Your task to perform on an android device: toggle show notifications on the lock screen Image 0: 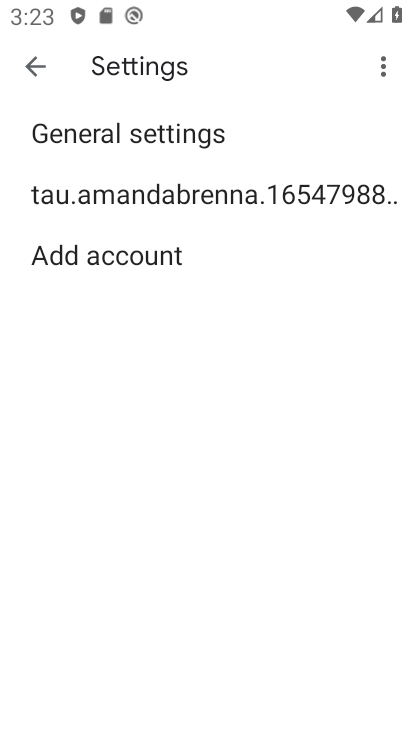
Step 0: press home button
Your task to perform on an android device: toggle show notifications on the lock screen Image 1: 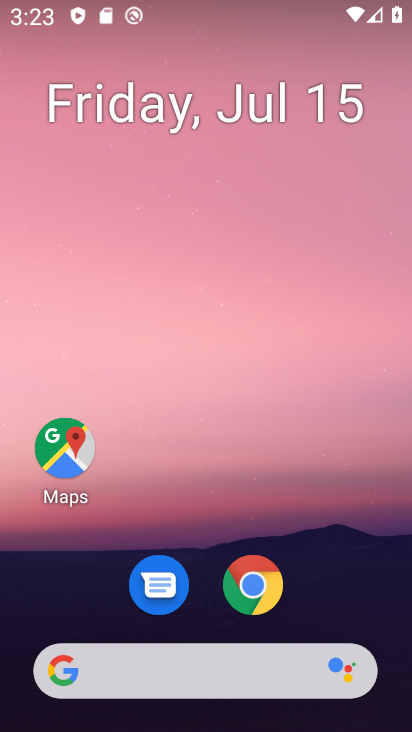
Step 1: drag from (186, 367) to (177, 143)
Your task to perform on an android device: toggle show notifications on the lock screen Image 2: 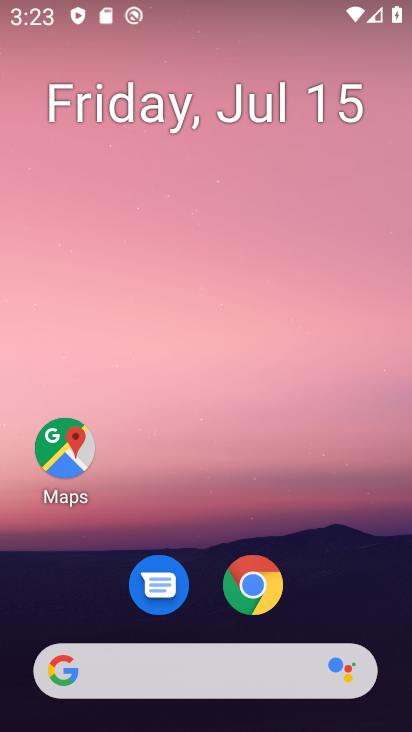
Step 2: drag from (230, 433) to (171, 86)
Your task to perform on an android device: toggle show notifications on the lock screen Image 3: 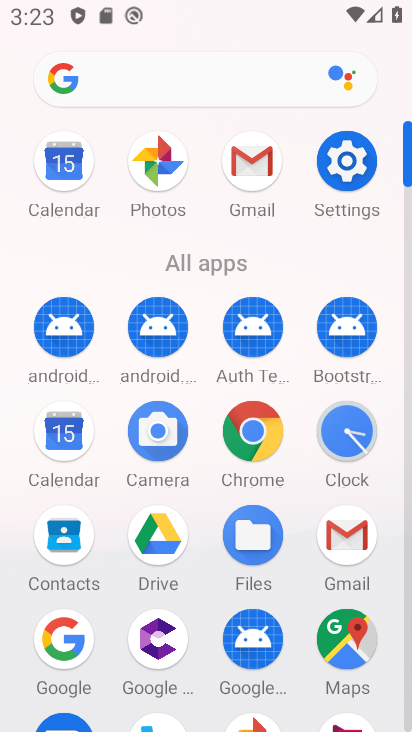
Step 3: click (339, 178)
Your task to perform on an android device: toggle show notifications on the lock screen Image 4: 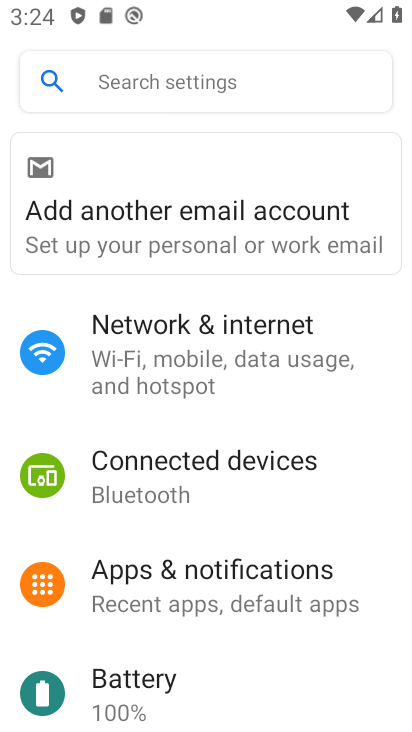
Step 4: click (218, 567)
Your task to perform on an android device: toggle show notifications on the lock screen Image 5: 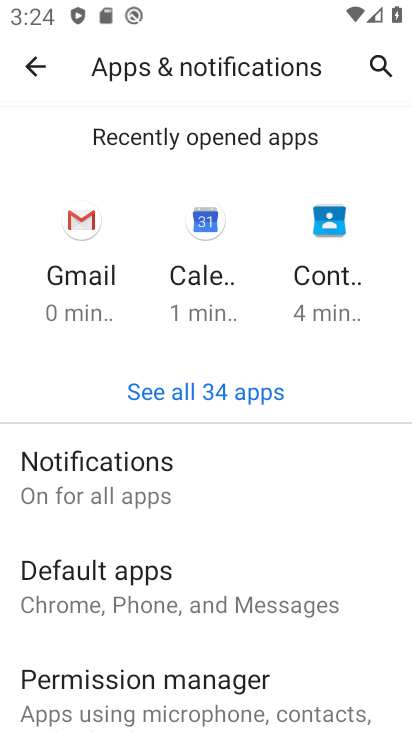
Step 5: click (238, 502)
Your task to perform on an android device: toggle show notifications on the lock screen Image 6: 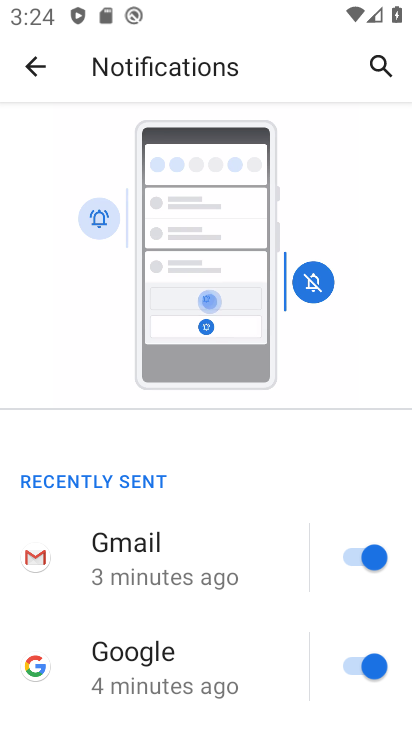
Step 6: drag from (186, 570) to (129, 51)
Your task to perform on an android device: toggle show notifications on the lock screen Image 7: 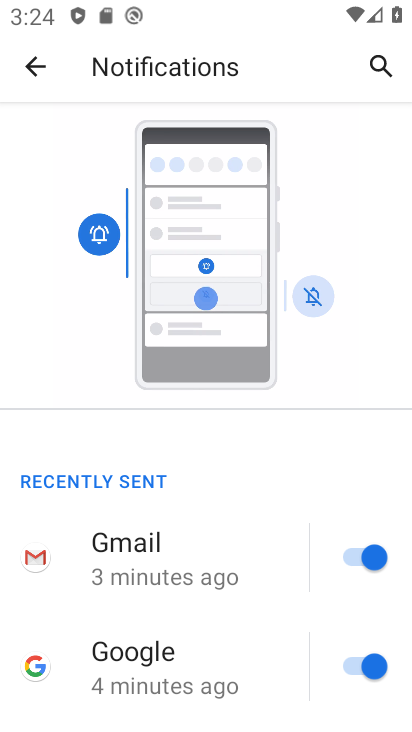
Step 7: drag from (159, 712) to (131, 153)
Your task to perform on an android device: toggle show notifications on the lock screen Image 8: 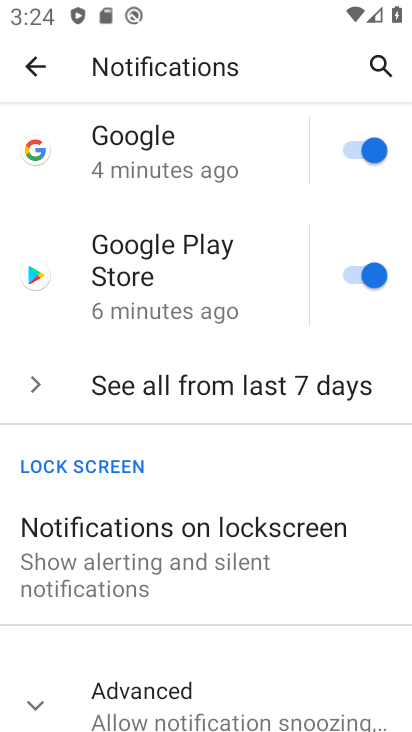
Step 8: click (191, 551)
Your task to perform on an android device: toggle show notifications on the lock screen Image 9: 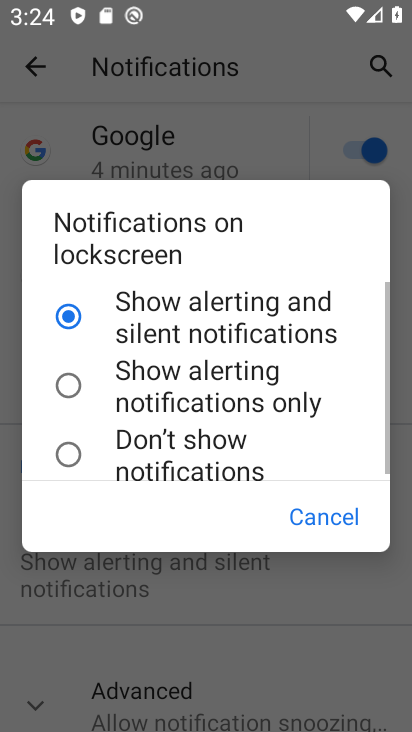
Step 9: click (157, 461)
Your task to perform on an android device: toggle show notifications on the lock screen Image 10: 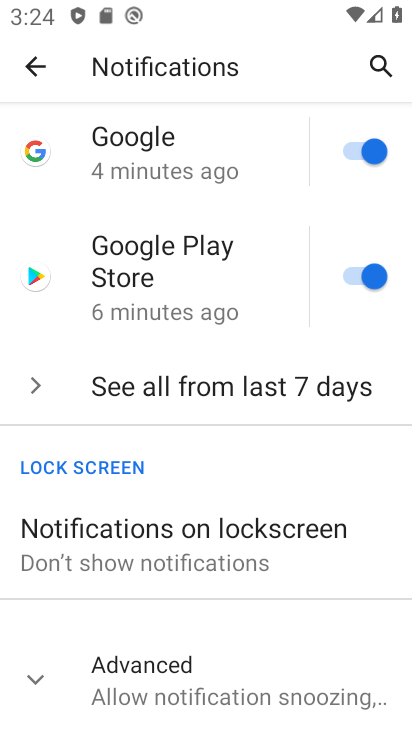
Step 10: task complete